Your task to perform on an android device: move an email to a new category in the gmail app Image 0: 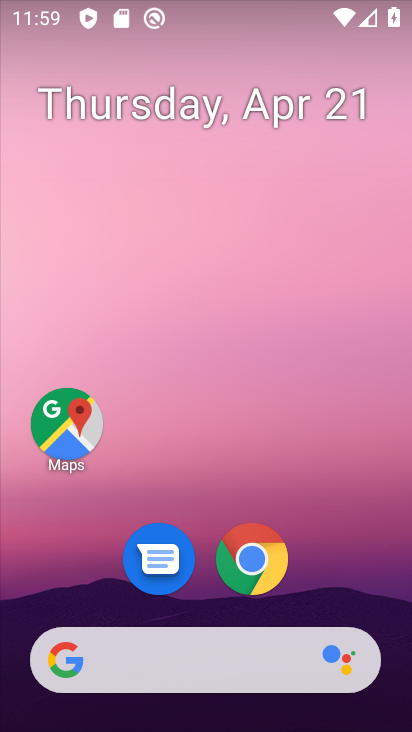
Step 0: drag from (299, 574) to (242, 157)
Your task to perform on an android device: move an email to a new category in the gmail app Image 1: 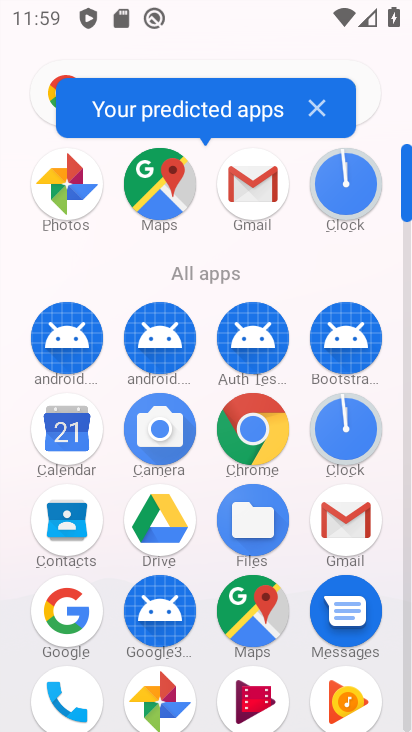
Step 1: click (348, 516)
Your task to perform on an android device: move an email to a new category in the gmail app Image 2: 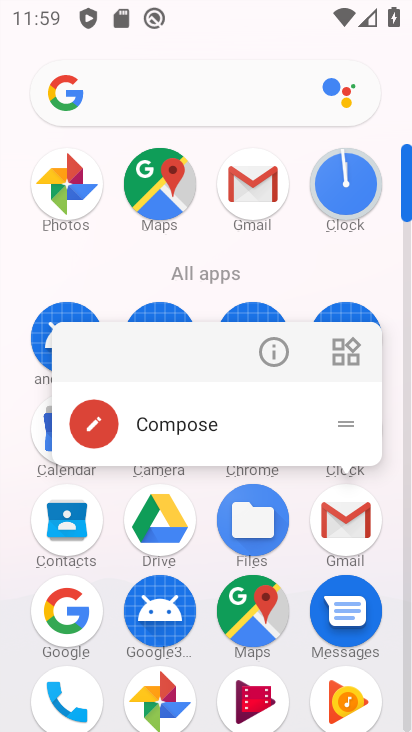
Step 2: click (349, 528)
Your task to perform on an android device: move an email to a new category in the gmail app Image 3: 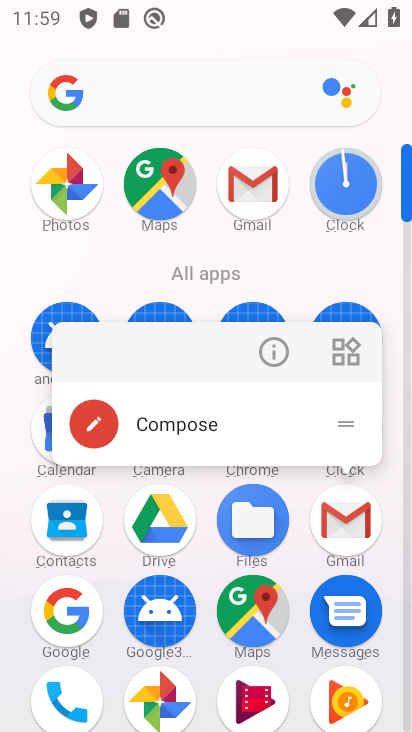
Step 3: click (349, 525)
Your task to perform on an android device: move an email to a new category in the gmail app Image 4: 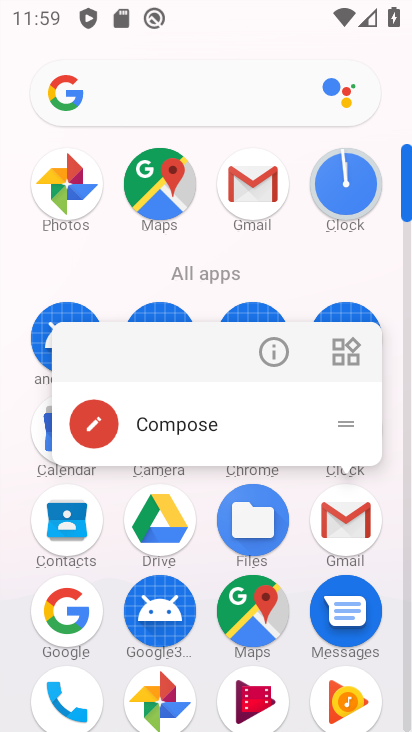
Step 4: click (348, 526)
Your task to perform on an android device: move an email to a new category in the gmail app Image 5: 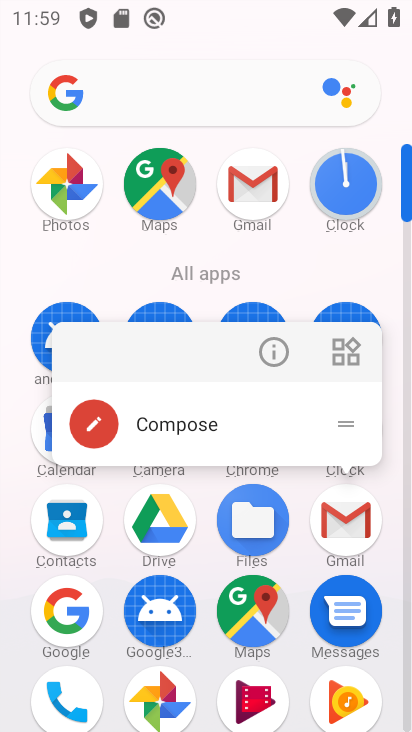
Step 5: click (345, 520)
Your task to perform on an android device: move an email to a new category in the gmail app Image 6: 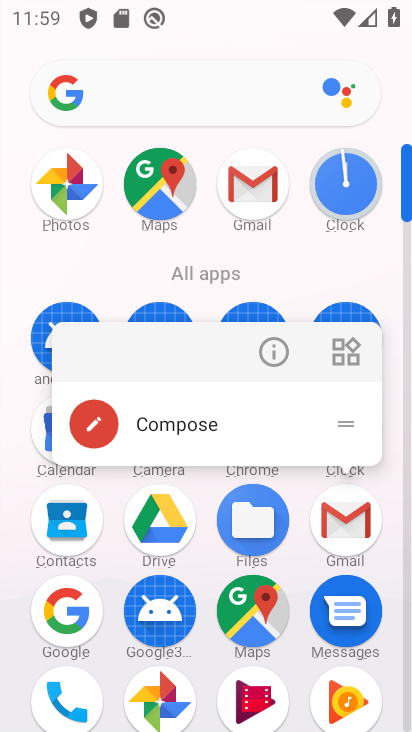
Step 6: click (345, 520)
Your task to perform on an android device: move an email to a new category in the gmail app Image 7: 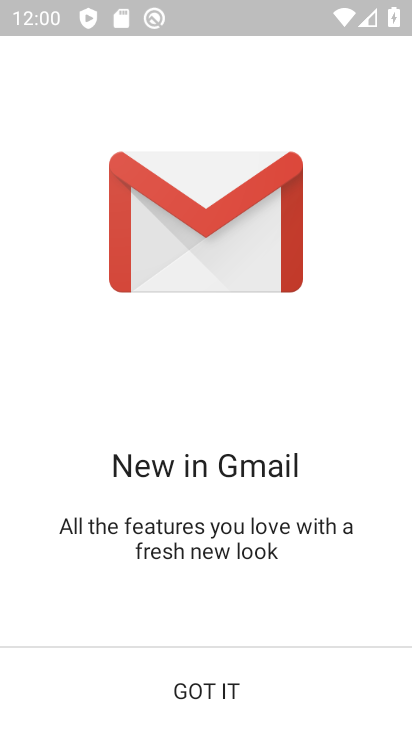
Step 7: click (221, 675)
Your task to perform on an android device: move an email to a new category in the gmail app Image 8: 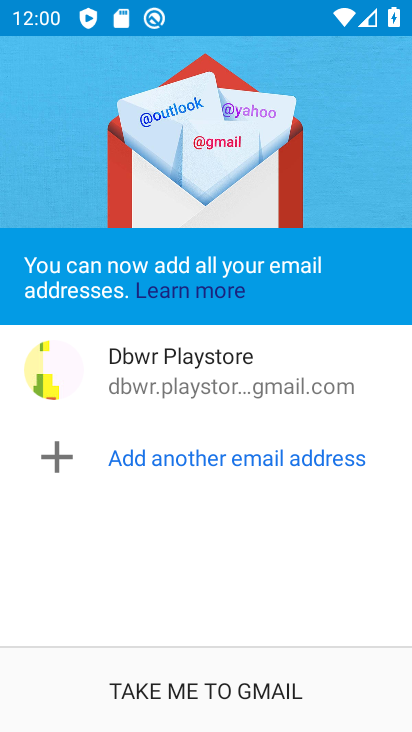
Step 8: click (210, 685)
Your task to perform on an android device: move an email to a new category in the gmail app Image 9: 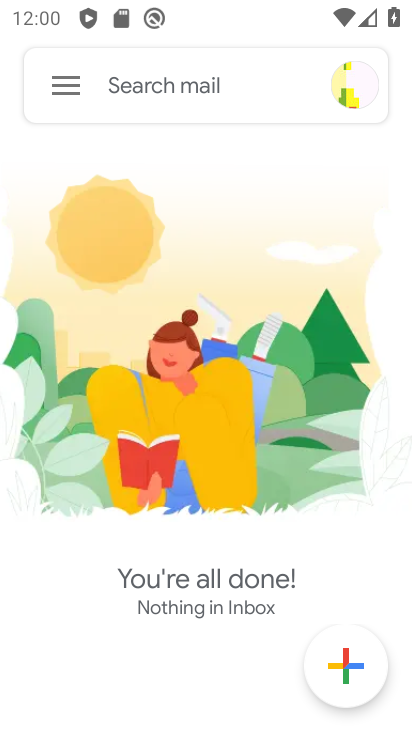
Step 9: click (65, 89)
Your task to perform on an android device: move an email to a new category in the gmail app Image 10: 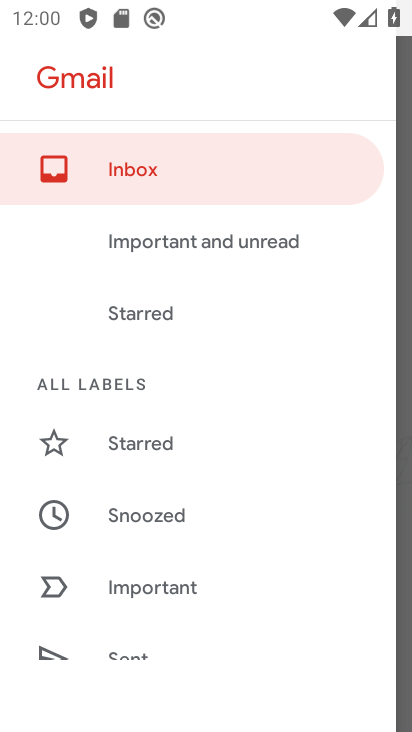
Step 10: drag from (151, 629) to (191, 286)
Your task to perform on an android device: move an email to a new category in the gmail app Image 11: 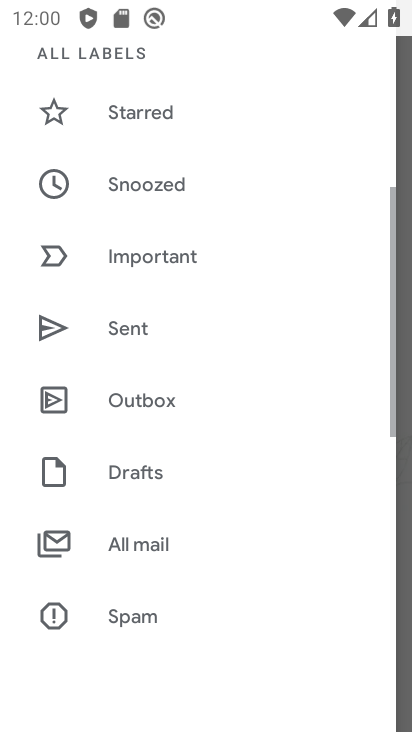
Step 11: click (127, 542)
Your task to perform on an android device: move an email to a new category in the gmail app Image 12: 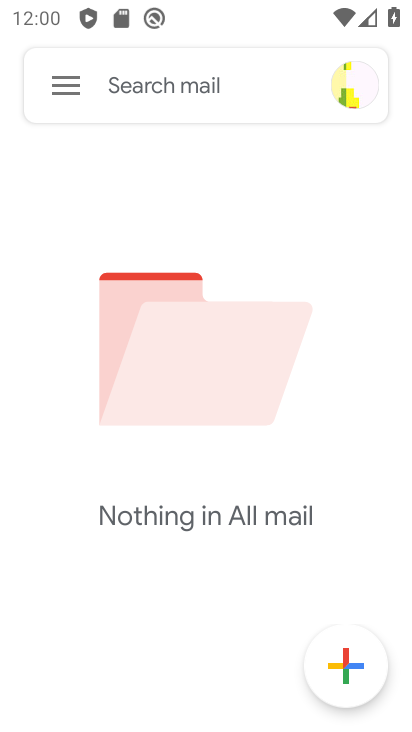
Step 12: task complete